Your task to perform on an android device: open a bookmark in the chrome app Image 0: 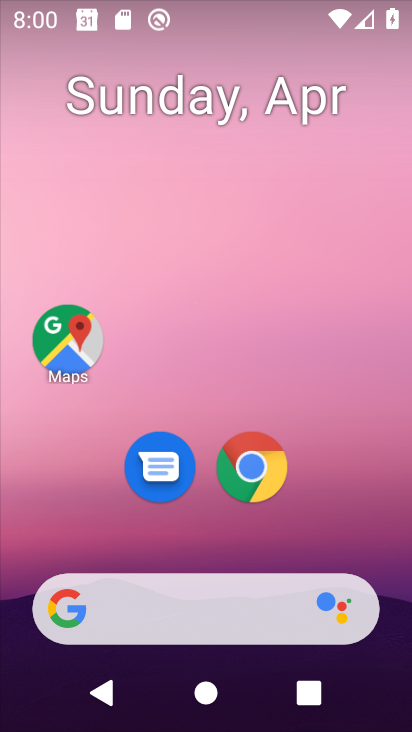
Step 0: click (269, 469)
Your task to perform on an android device: open a bookmark in the chrome app Image 1: 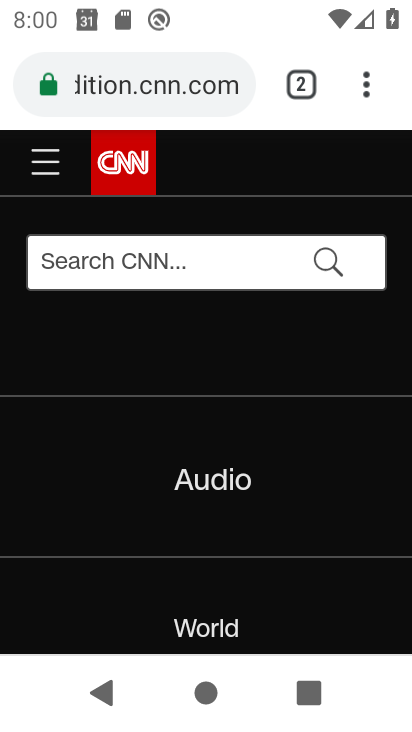
Step 1: click (373, 82)
Your task to perform on an android device: open a bookmark in the chrome app Image 2: 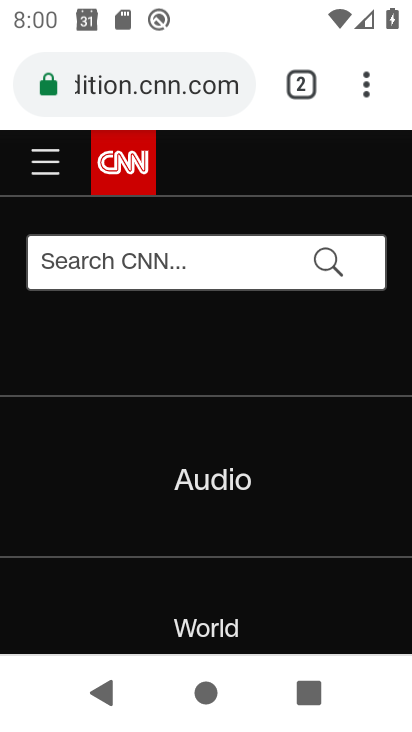
Step 2: click (373, 90)
Your task to perform on an android device: open a bookmark in the chrome app Image 3: 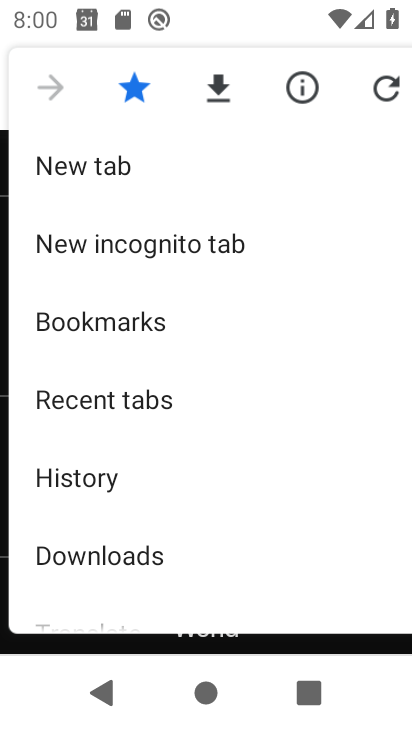
Step 3: click (132, 320)
Your task to perform on an android device: open a bookmark in the chrome app Image 4: 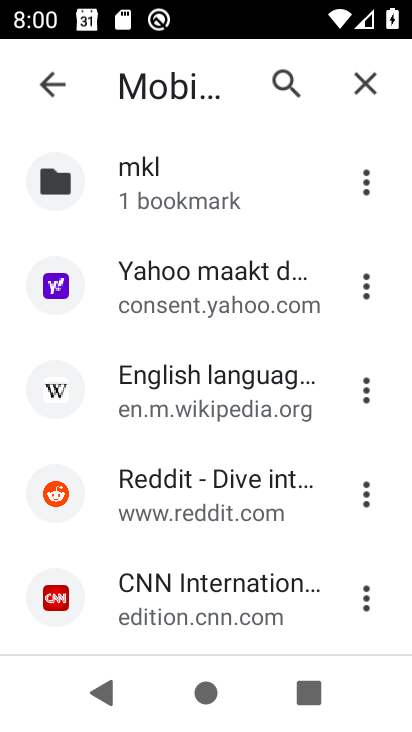
Step 4: click (179, 391)
Your task to perform on an android device: open a bookmark in the chrome app Image 5: 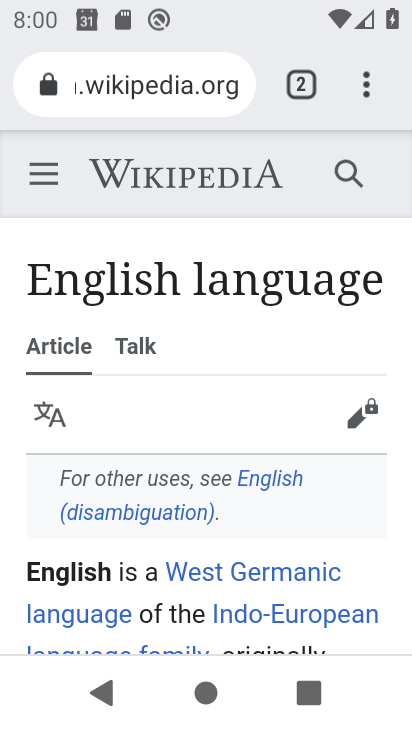
Step 5: task complete